Your task to perform on an android device: Open the calendar and show me this week's events? Image 0: 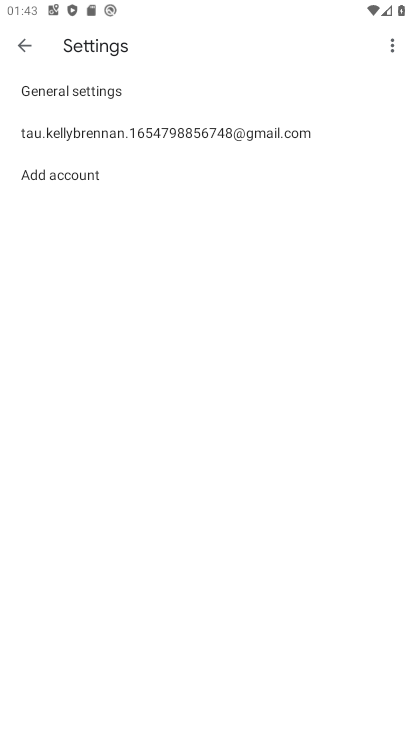
Step 0: press home button
Your task to perform on an android device: Open the calendar and show me this week's events? Image 1: 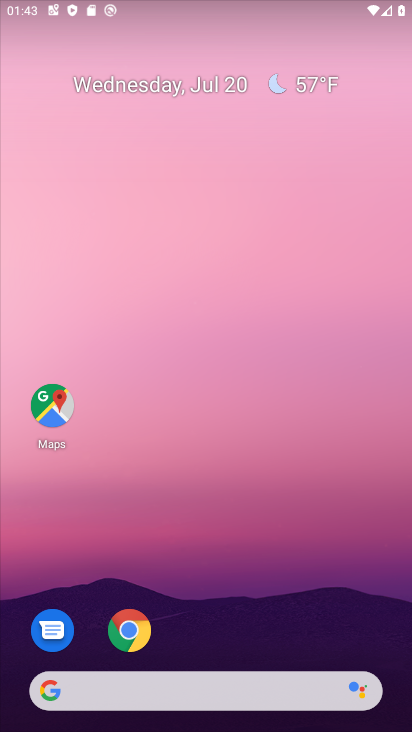
Step 1: drag from (269, 559) to (162, 27)
Your task to perform on an android device: Open the calendar and show me this week's events? Image 2: 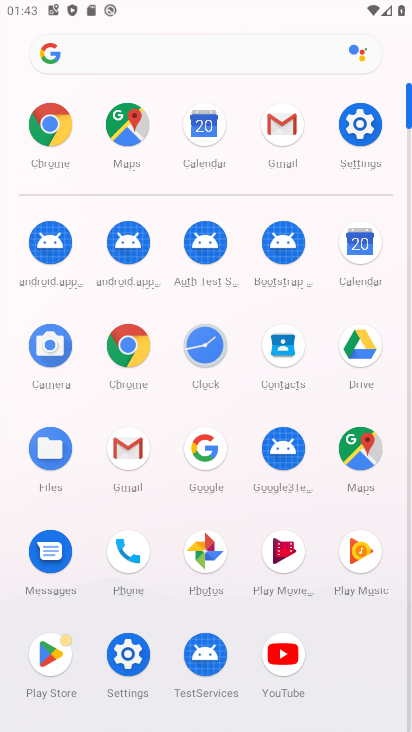
Step 2: click (204, 131)
Your task to perform on an android device: Open the calendar and show me this week's events? Image 3: 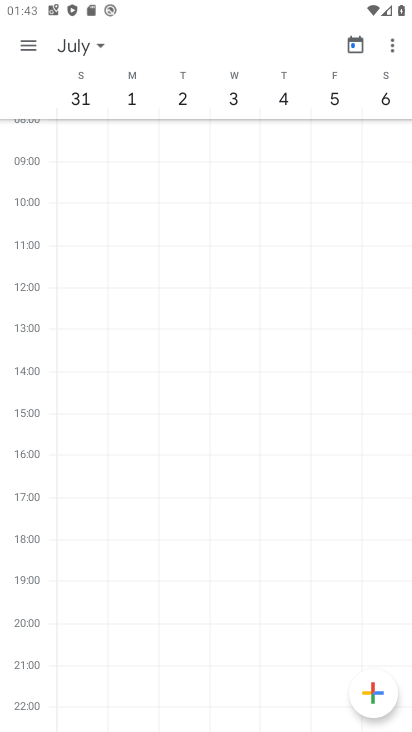
Step 3: click (63, 39)
Your task to perform on an android device: Open the calendar and show me this week's events? Image 4: 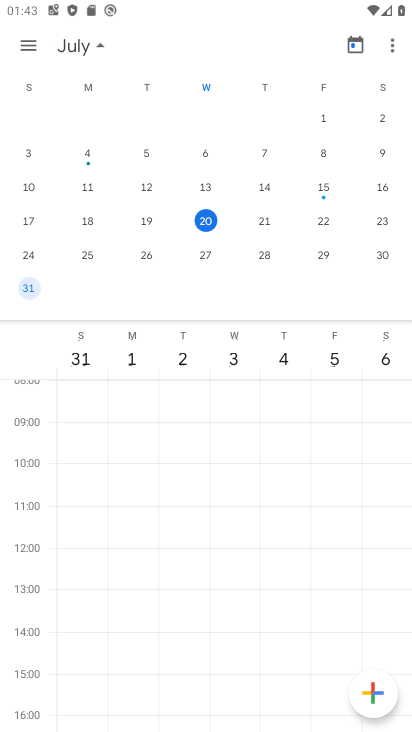
Step 4: click (209, 220)
Your task to perform on an android device: Open the calendar and show me this week's events? Image 5: 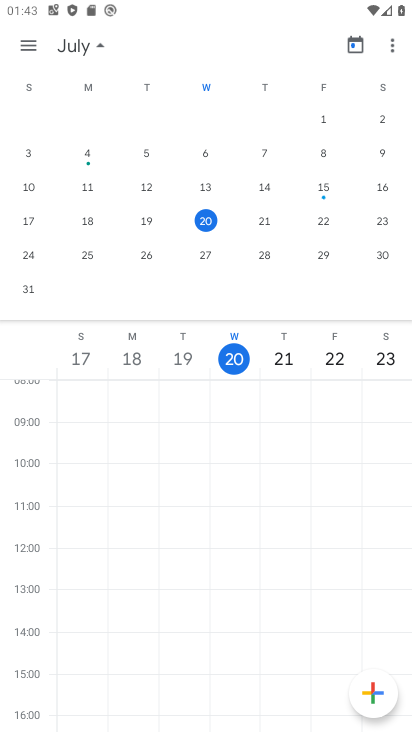
Step 5: task complete